Your task to perform on an android device: find which apps use the phone's location Image 0: 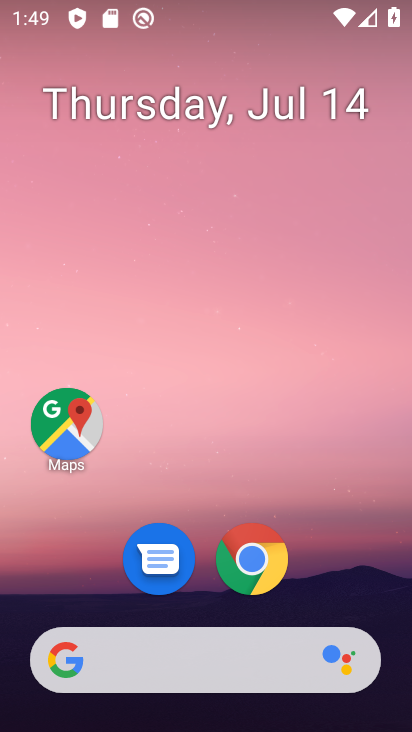
Step 0: drag from (257, 590) to (349, 77)
Your task to perform on an android device: find which apps use the phone's location Image 1: 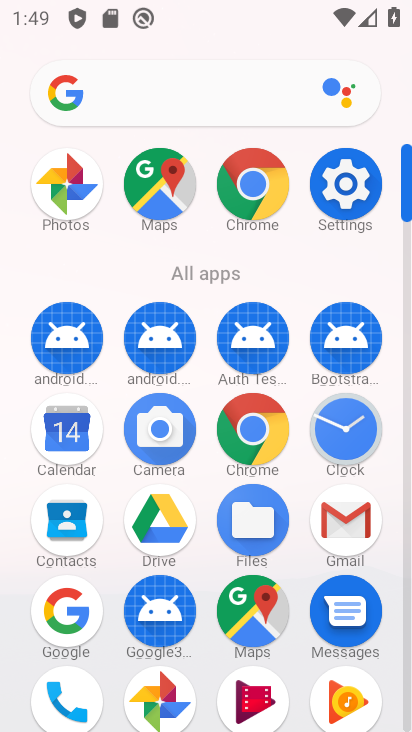
Step 1: click (358, 206)
Your task to perform on an android device: find which apps use the phone's location Image 2: 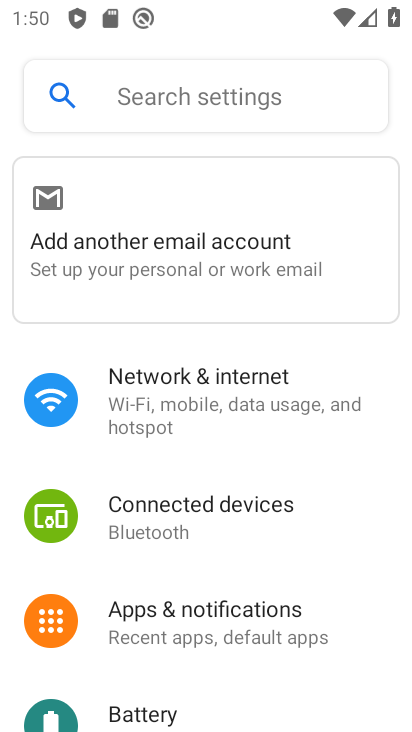
Step 2: drag from (205, 578) to (270, 193)
Your task to perform on an android device: find which apps use the phone's location Image 3: 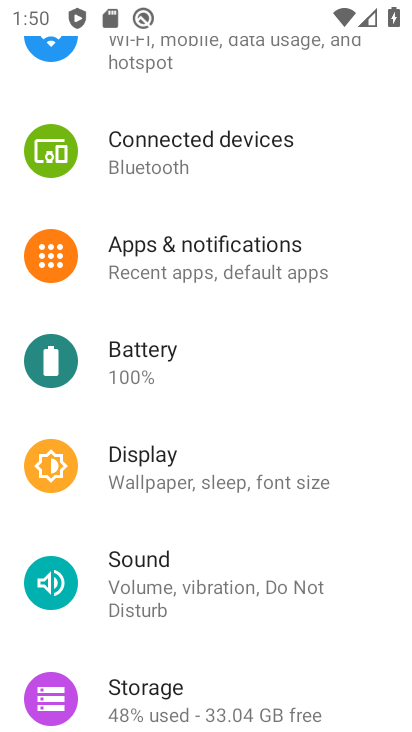
Step 3: drag from (240, 517) to (250, 311)
Your task to perform on an android device: find which apps use the phone's location Image 4: 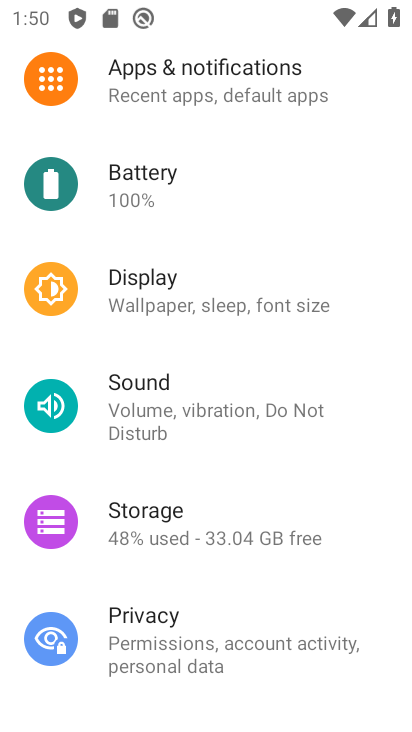
Step 4: drag from (191, 584) to (232, 290)
Your task to perform on an android device: find which apps use the phone's location Image 5: 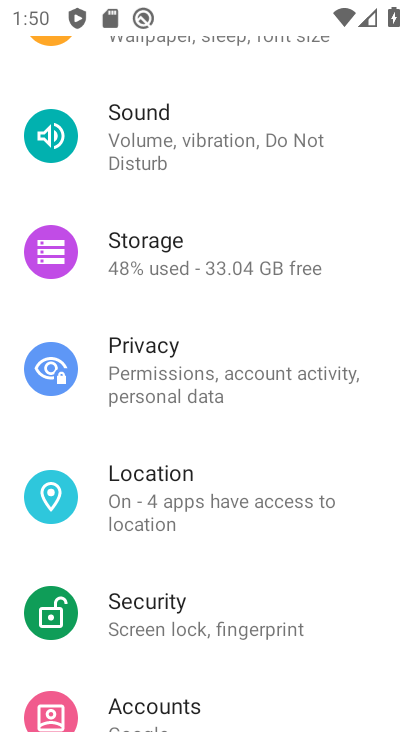
Step 5: click (199, 496)
Your task to perform on an android device: find which apps use the phone's location Image 6: 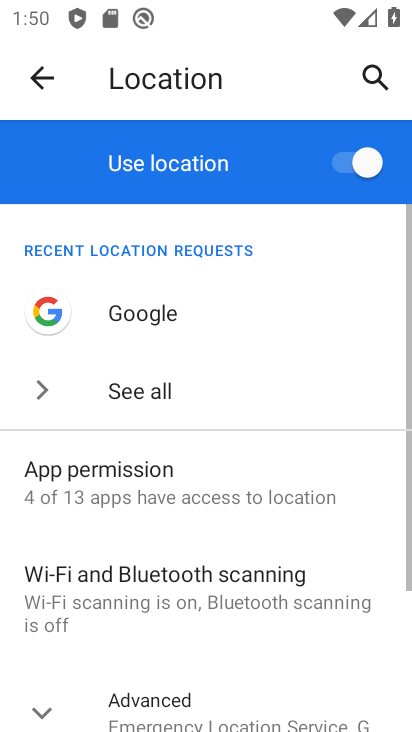
Step 6: click (168, 495)
Your task to perform on an android device: find which apps use the phone's location Image 7: 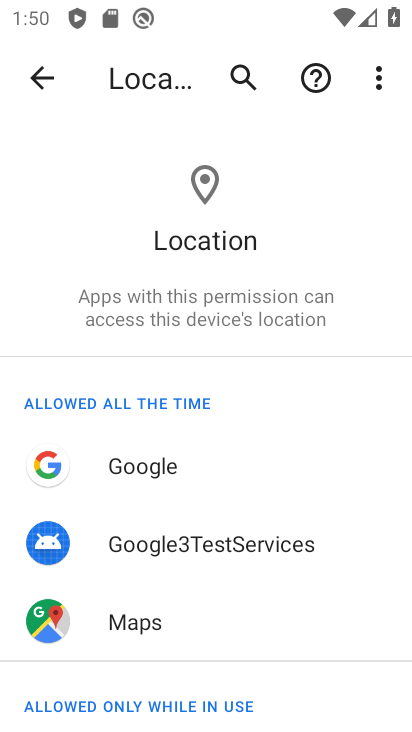
Step 7: task complete